Your task to perform on an android device: toggle pop-ups in chrome Image 0: 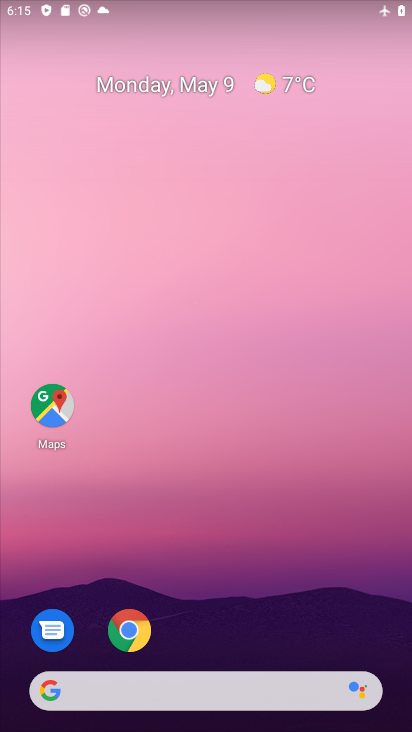
Step 0: click (242, 125)
Your task to perform on an android device: toggle pop-ups in chrome Image 1: 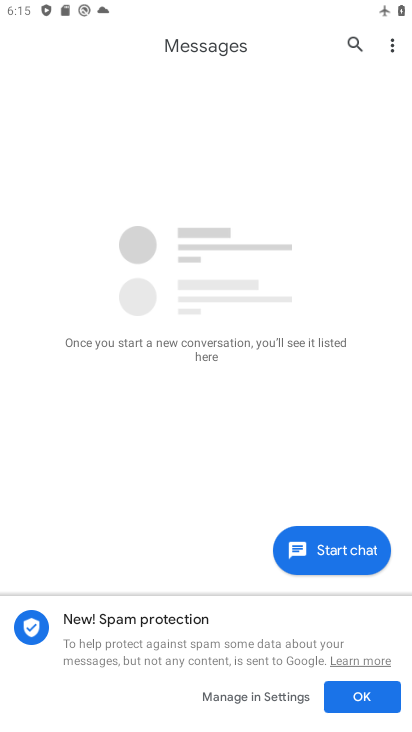
Step 1: press home button
Your task to perform on an android device: toggle pop-ups in chrome Image 2: 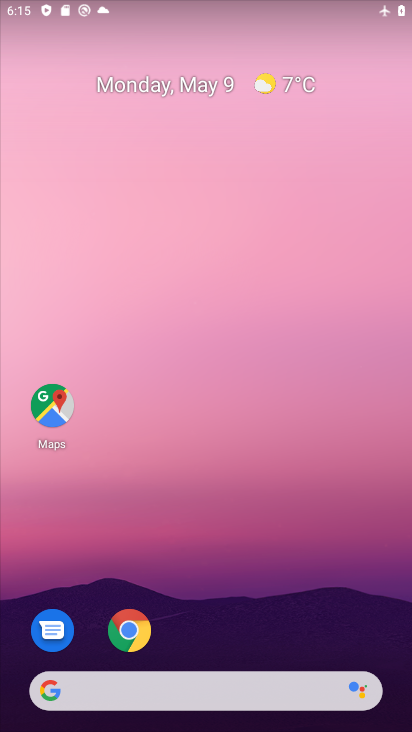
Step 2: drag from (213, 615) to (200, 9)
Your task to perform on an android device: toggle pop-ups in chrome Image 3: 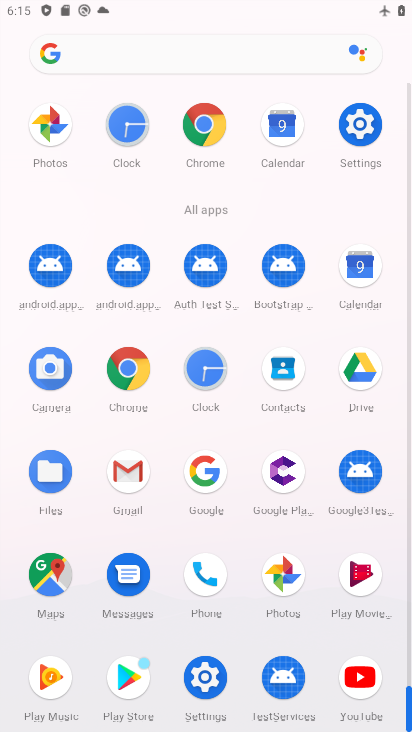
Step 3: click (351, 136)
Your task to perform on an android device: toggle pop-ups in chrome Image 4: 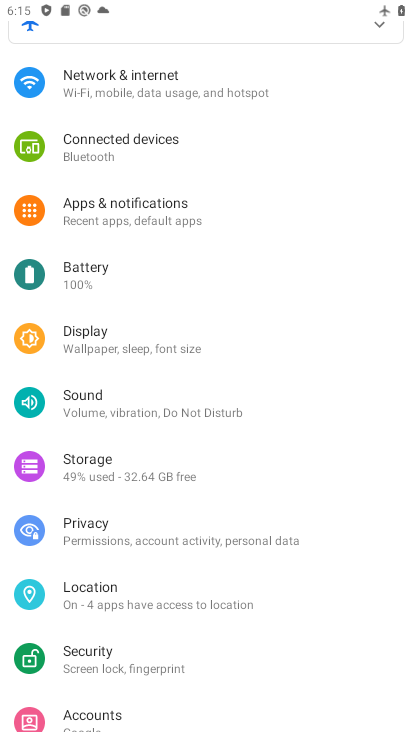
Step 4: click (100, 419)
Your task to perform on an android device: toggle pop-ups in chrome Image 5: 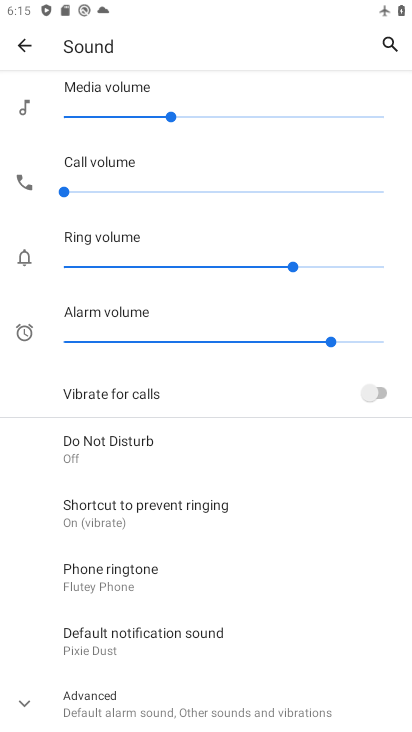
Step 5: task complete